Your task to perform on an android device: When is my next appointment? Image 0: 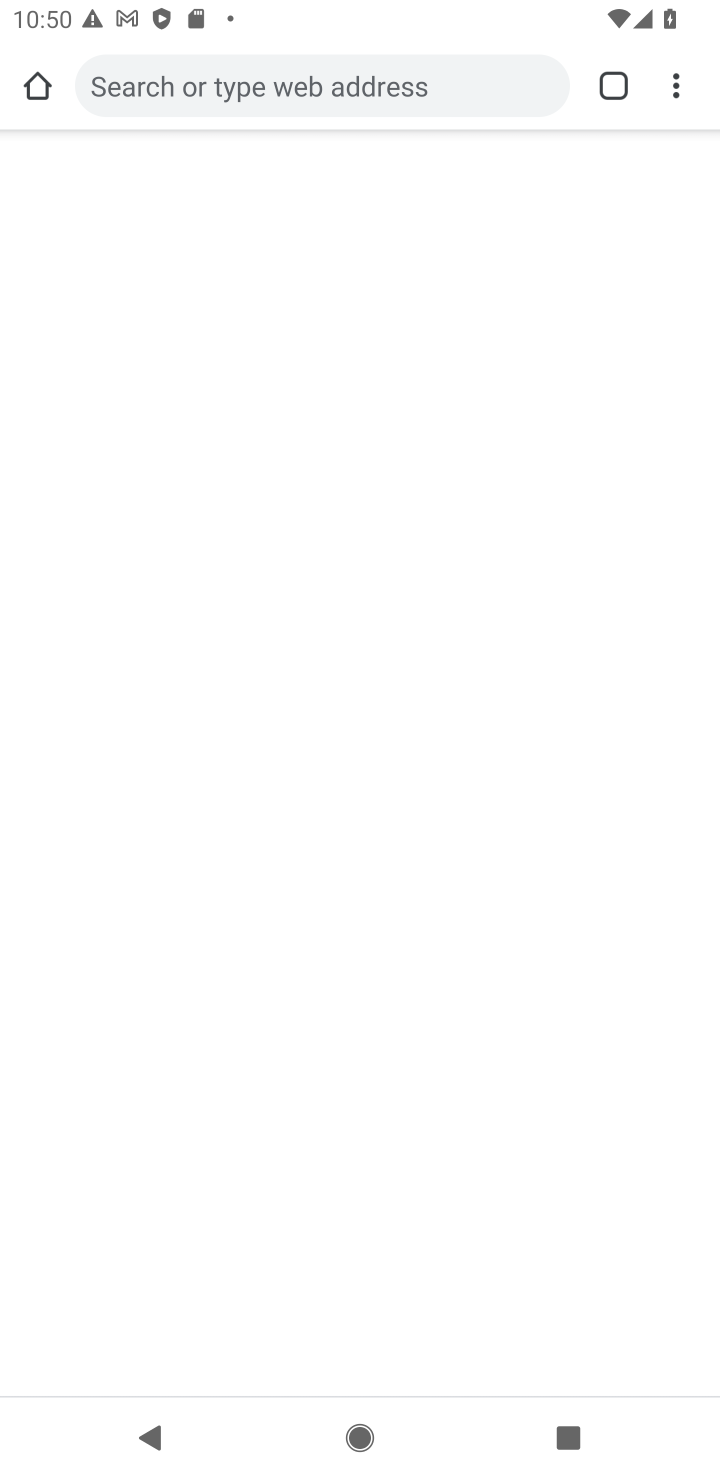
Step 0: press home button
Your task to perform on an android device: When is my next appointment? Image 1: 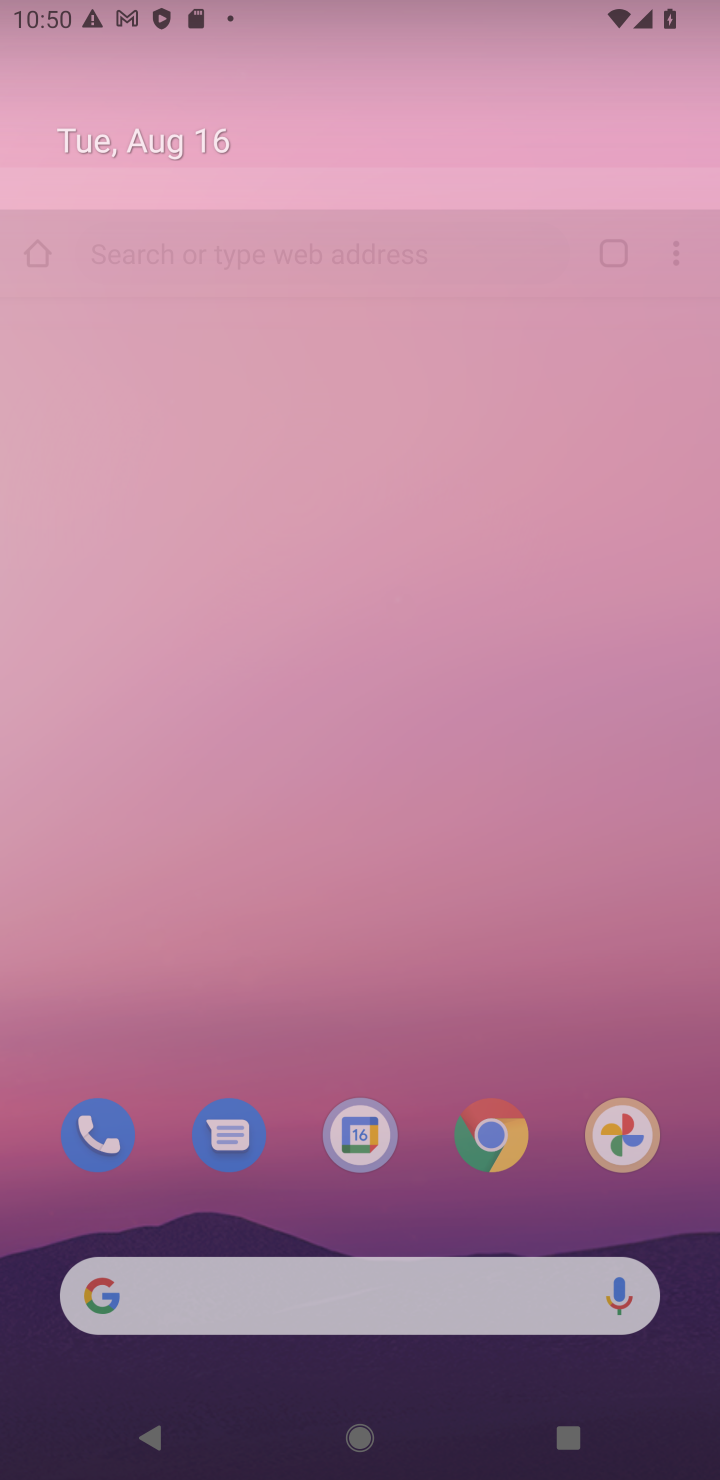
Step 1: drag from (292, 1005) to (450, 1299)
Your task to perform on an android device: When is my next appointment? Image 2: 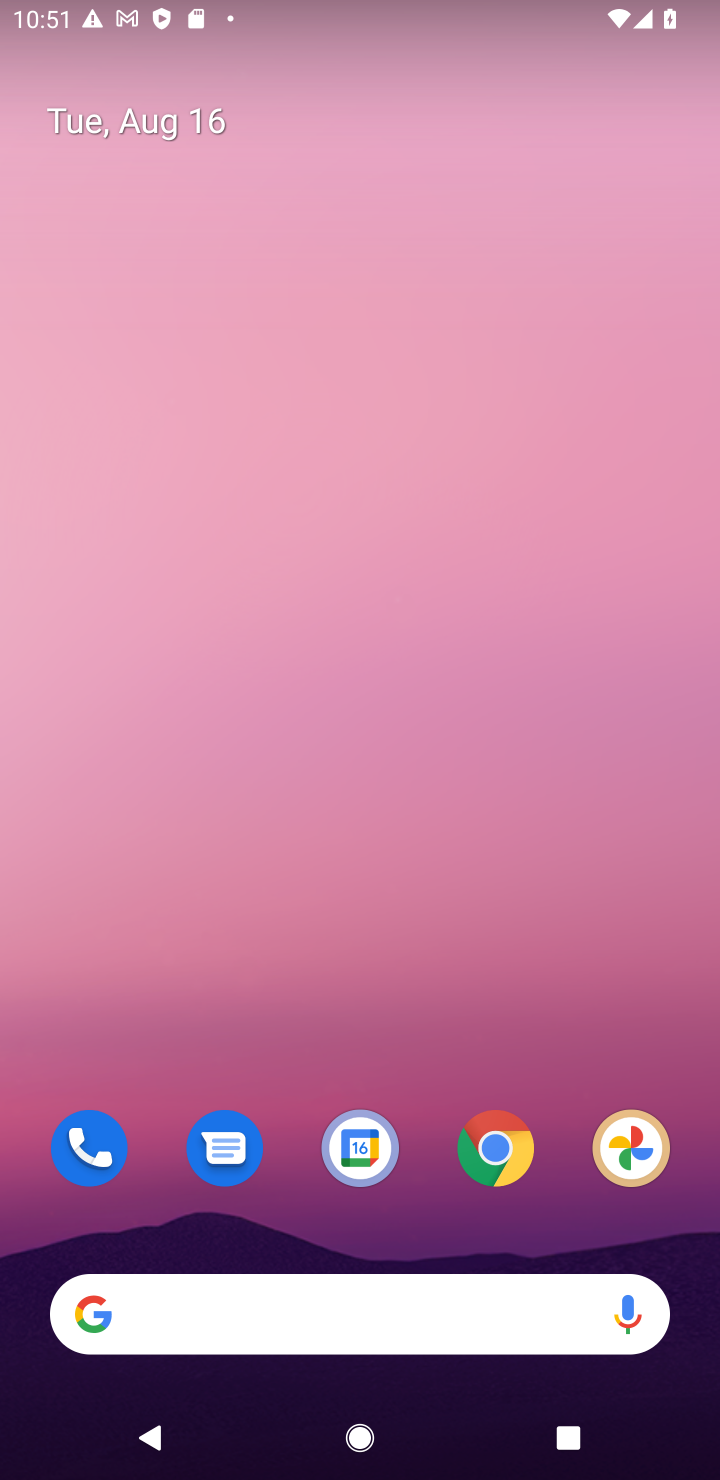
Step 2: drag from (455, 1016) to (613, 166)
Your task to perform on an android device: When is my next appointment? Image 3: 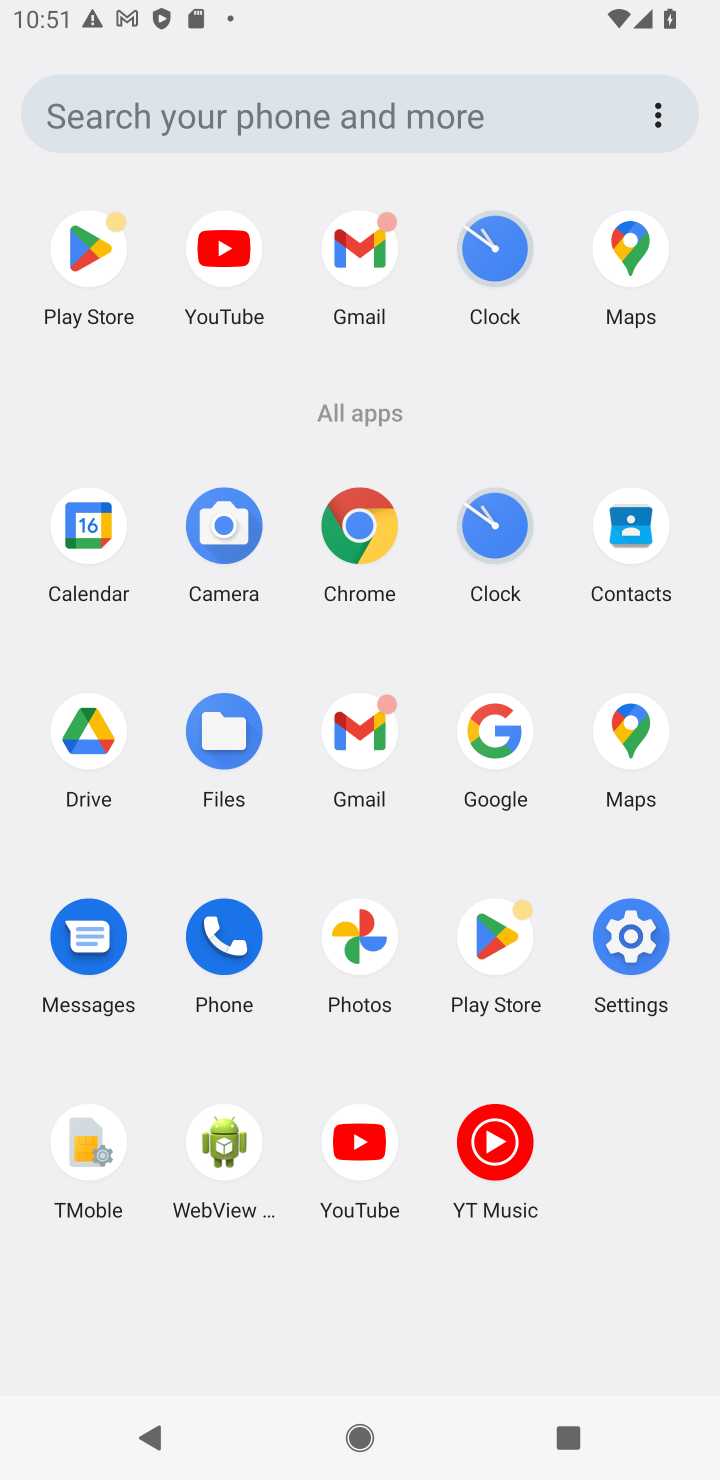
Step 3: click (69, 491)
Your task to perform on an android device: When is my next appointment? Image 4: 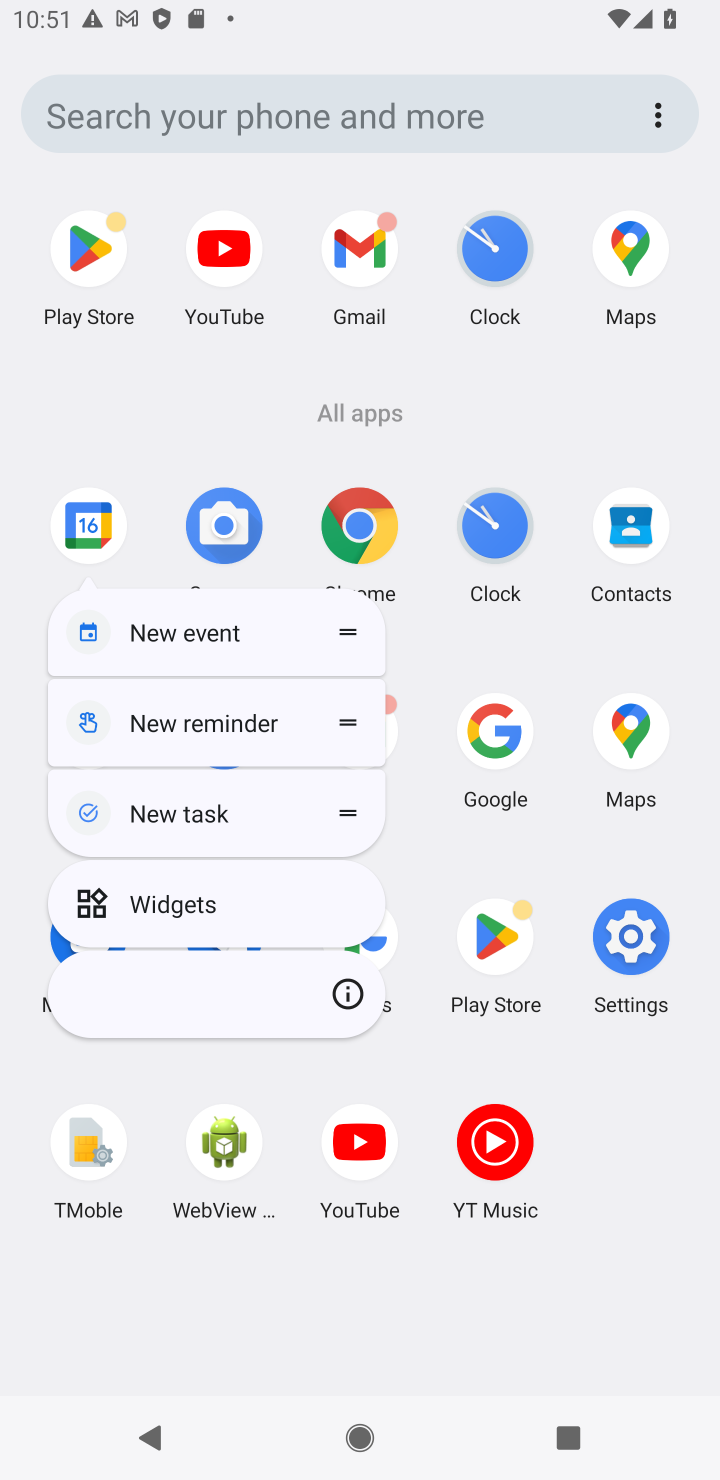
Step 4: click (76, 529)
Your task to perform on an android device: When is my next appointment? Image 5: 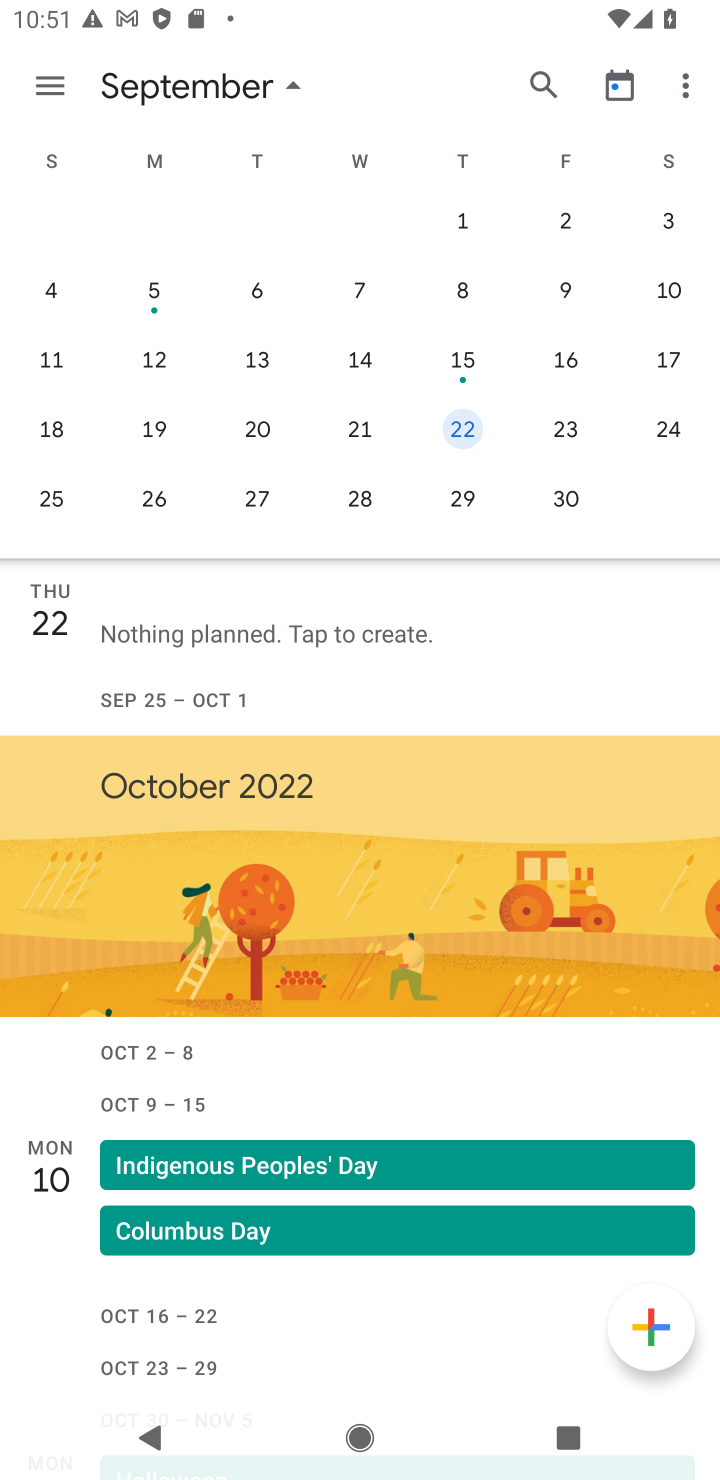
Step 5: drag from (49, 377) to (660, 311)
Your task to perform on an android device: When is my next appointment? Image 6: 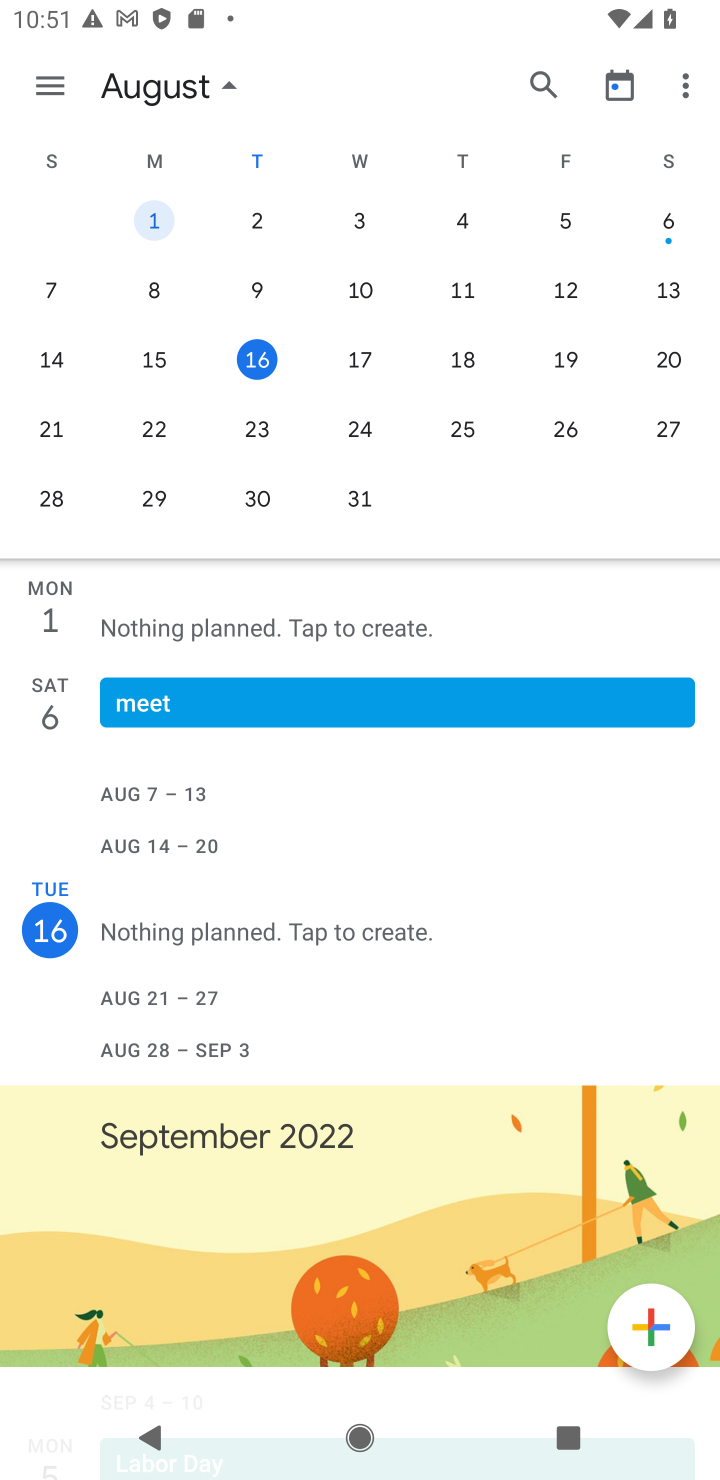
Step 6: click (270, 352)
Your task to perform on an android device: When is my next appointment? Image 7: 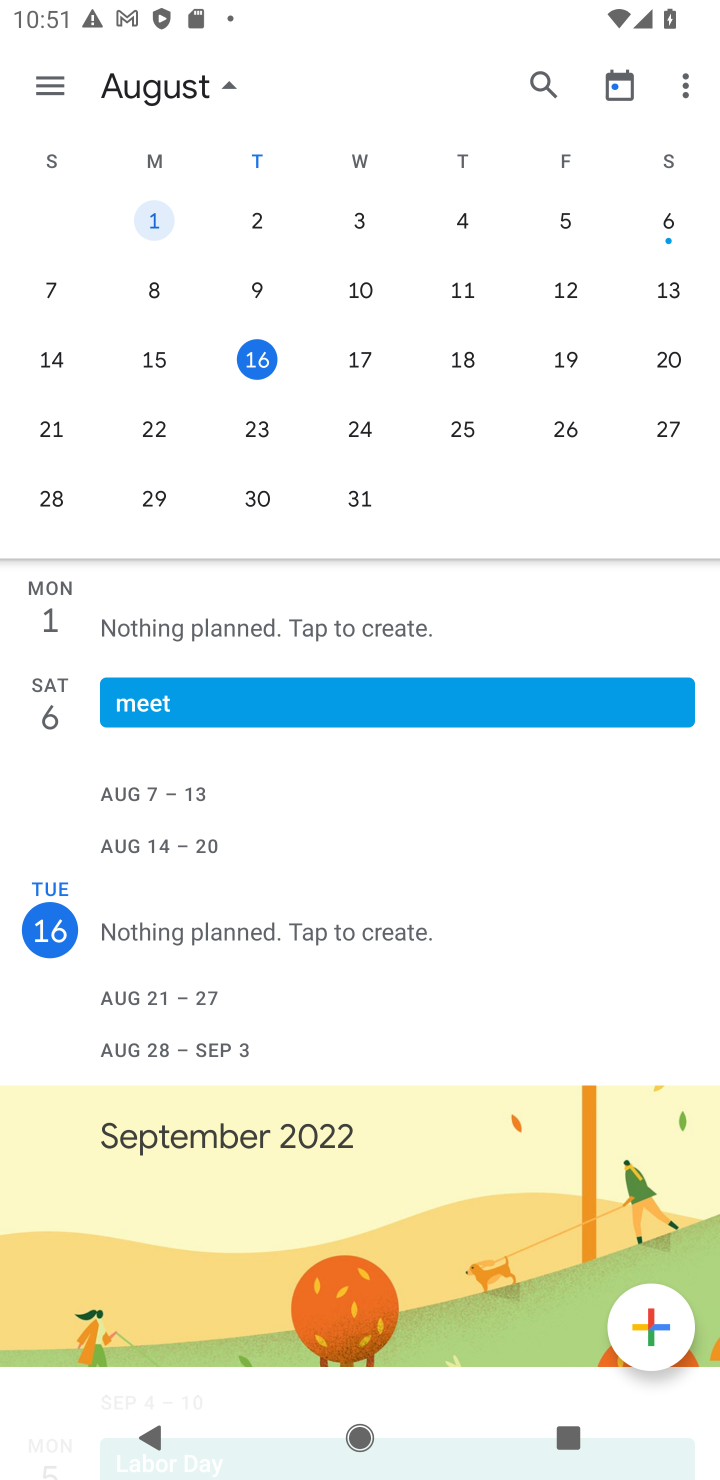
Step 7: click (270, 352)
Your task to perform on an android device: When is my next appointment? Image 8: 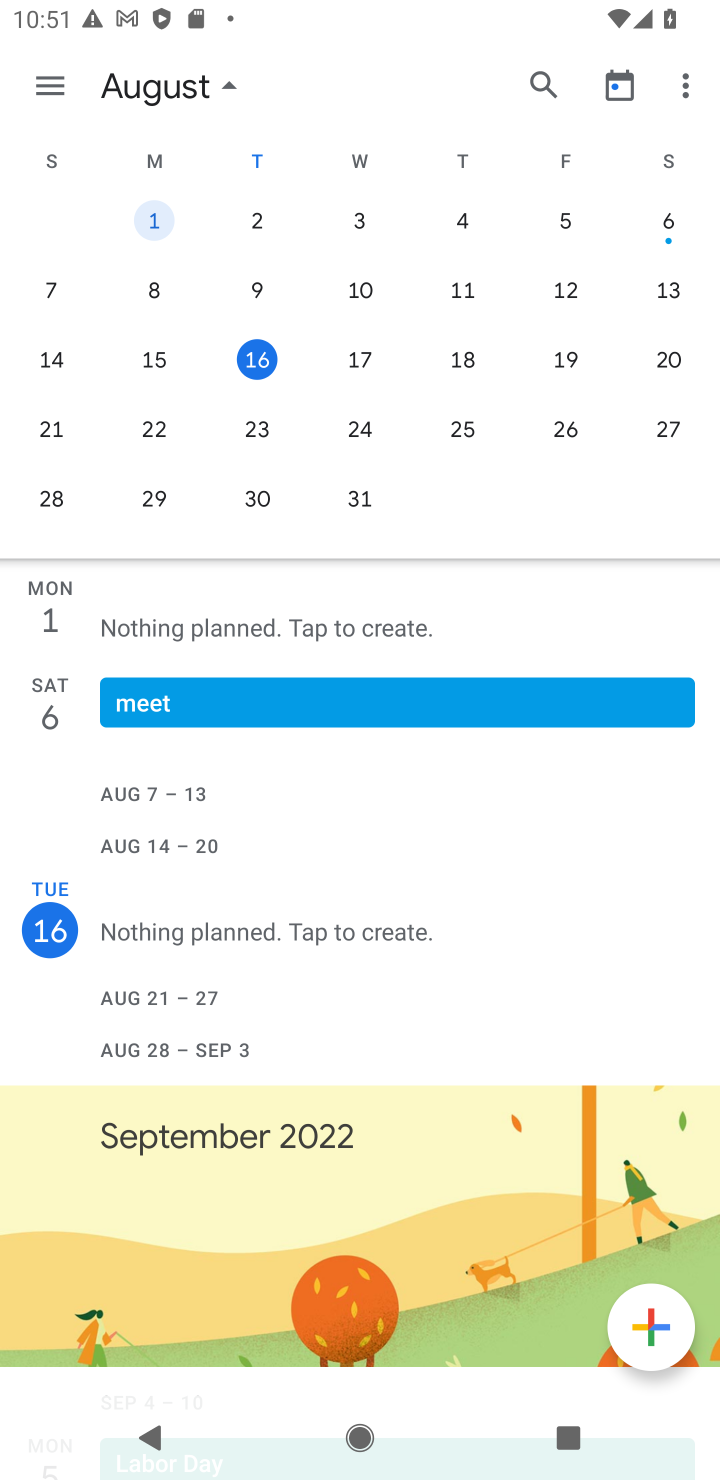
Step 8: click (270, 352)
Your task to perform on an android device: When is my next appointment? Image 9: 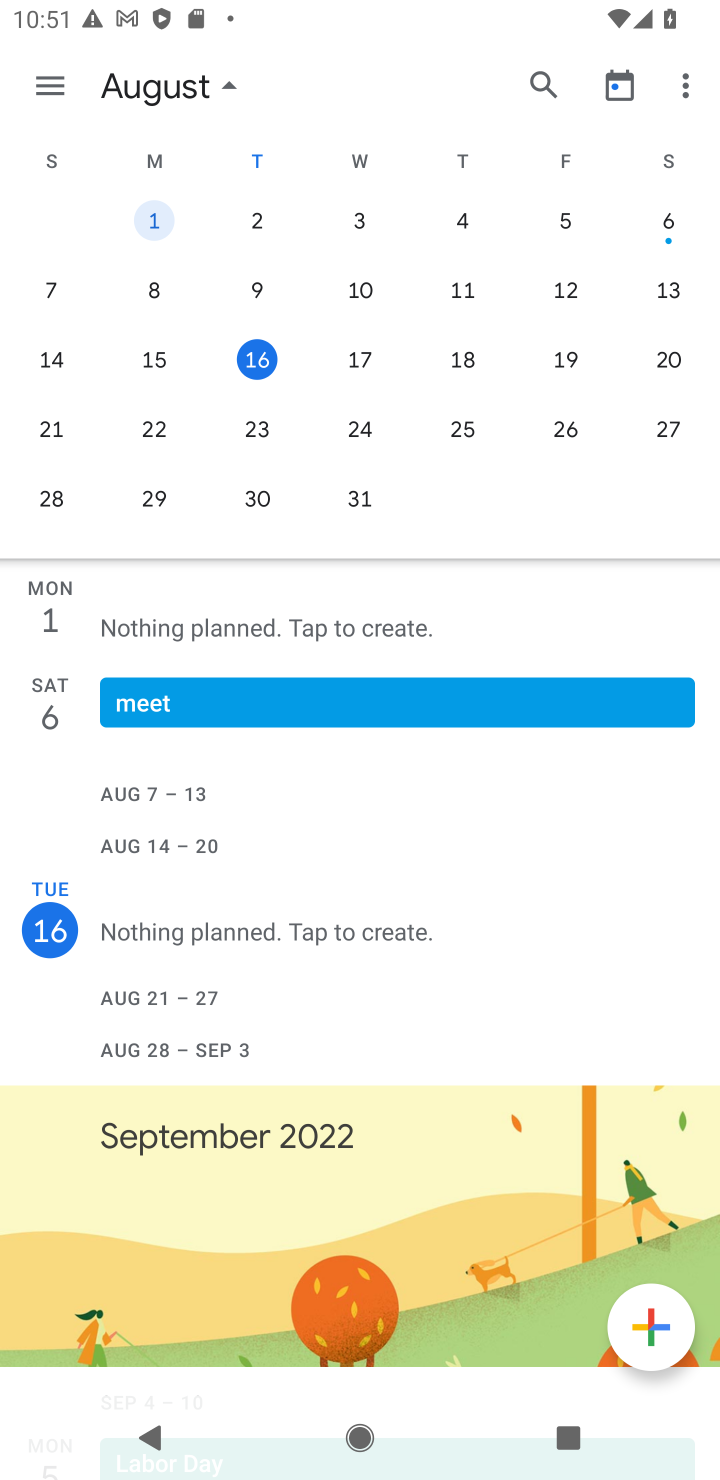
Step 9: click (268, 351)
Your task to perform on an android device: When is my next appointment? Image 10: 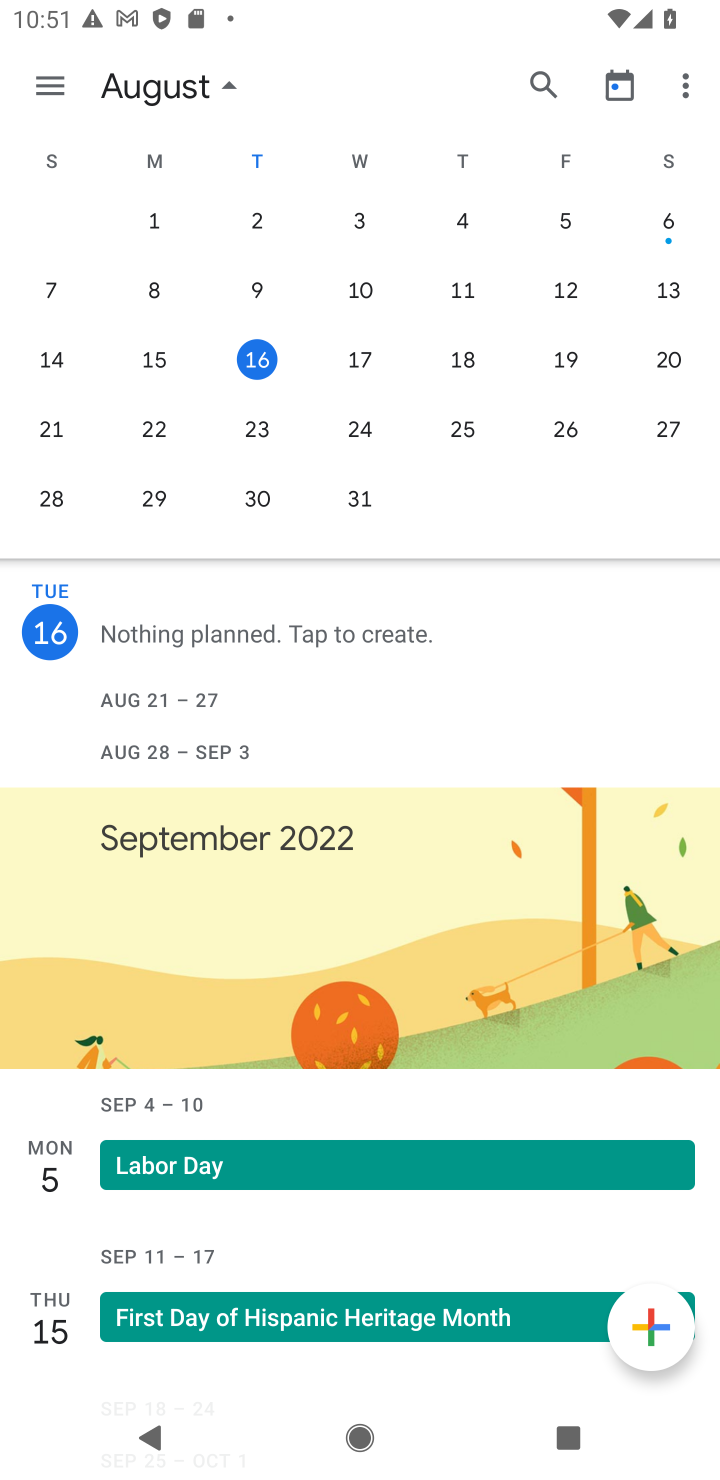
Step 10: click (268, 351)
Your task to perform on an android device: When is my next appointment? Image 11: 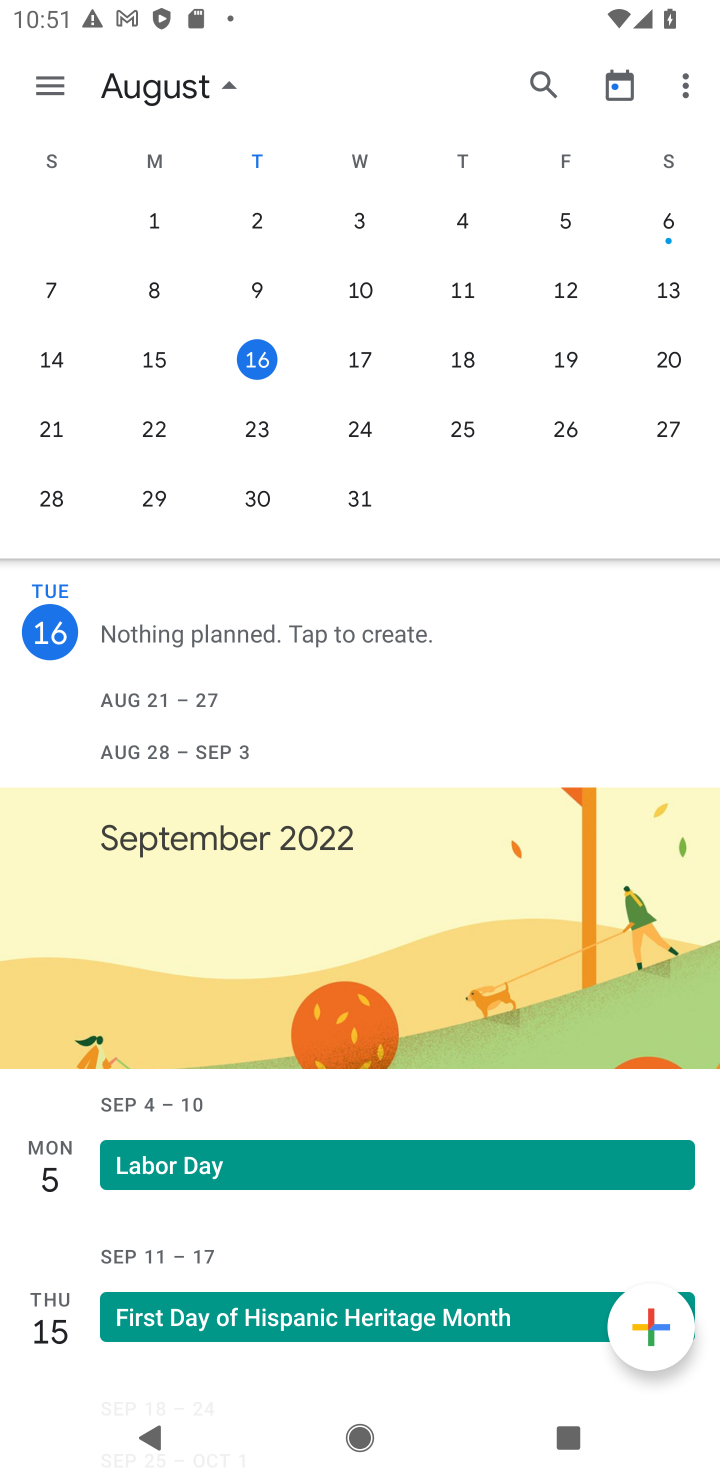
Step 11: task complete